Your task to perform on an android device: move a message to another label in the gmail app Image 0: 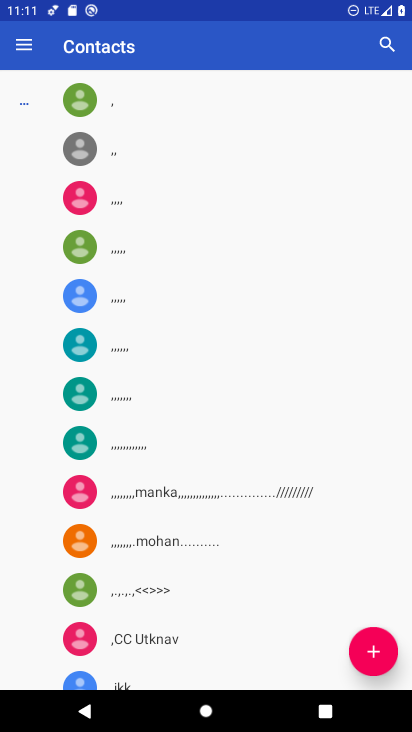
Step 0: press home button
Your task to perform on an android device: move a message to another label in the gmail app Image 1: 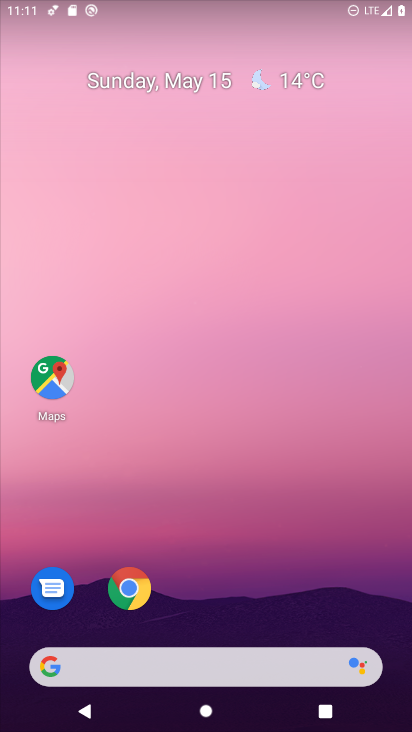
Step 1: drag from (285, 599) to (319, 78)
Your task to perform on an android device: move a message to another label in the gmail app Image 2: 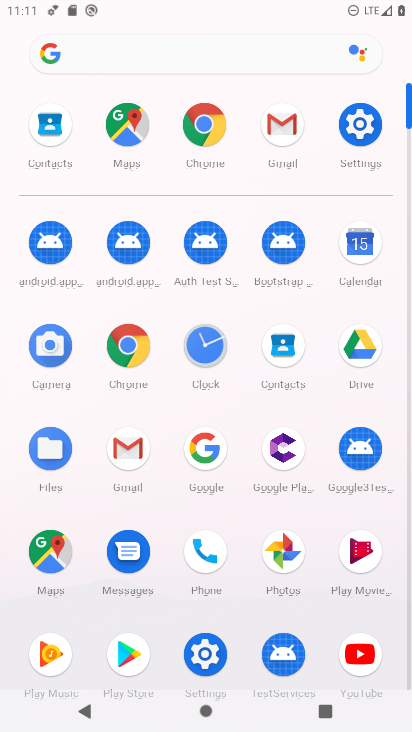
Step 2: click (129, 460)
Your task to perform on an android device: move a message to another label in the gmail app Image 3: 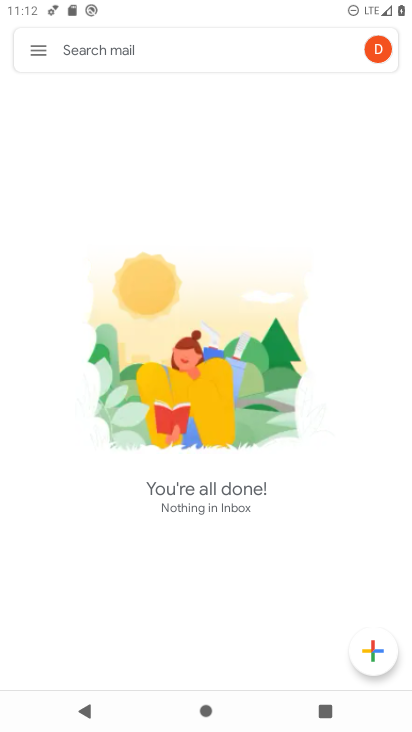
Step 3: click (41, 46)
Your task to perform on an android device: move a message to another label in the gmail app Image 4: 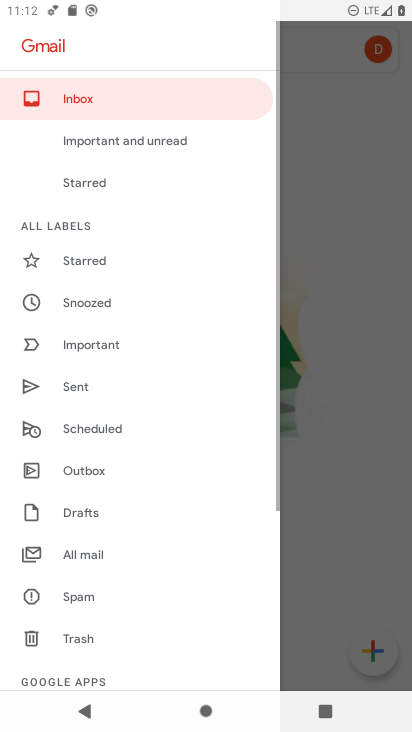
Step 4: drag from (138, 543) to (143, 464)
Your task to perform on an android device: move a message to another label in the gmail app Image 5: 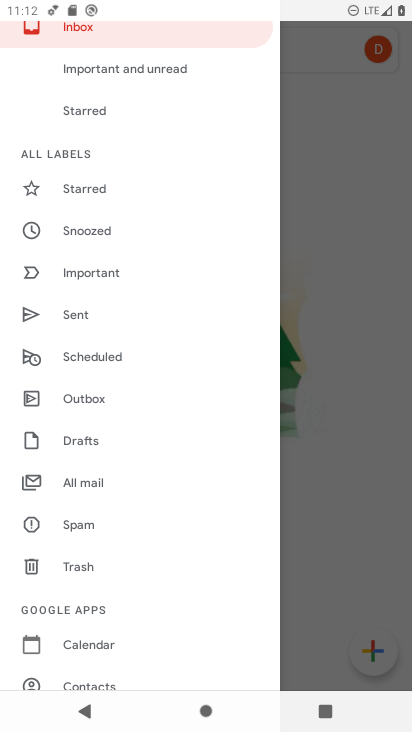
Step 5: click (80, 492)
Your task to perform on an android device: move a message to another label in the gmail app Image 6: 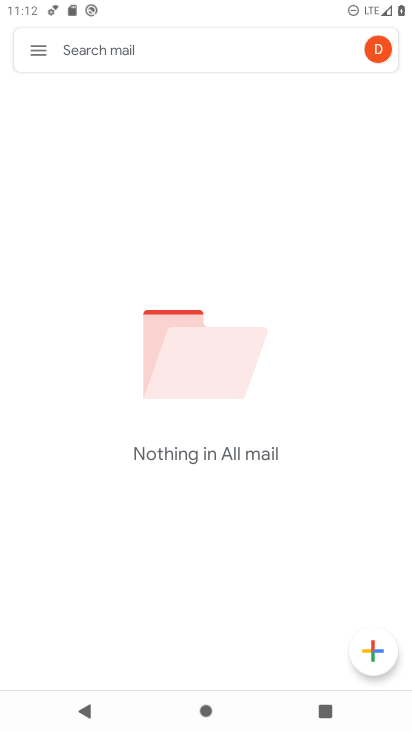
Step 6: task complete